Your task to perform on an android device: add a contact Image 0: 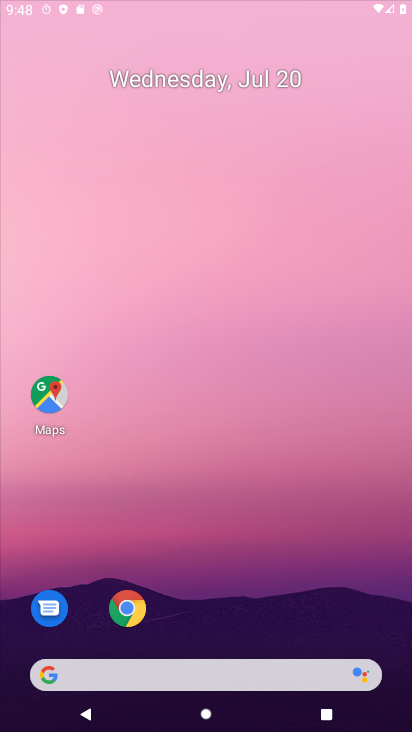
Step 0: click (197, 115)
Your task to perform on an android device: add a contact Image 1: 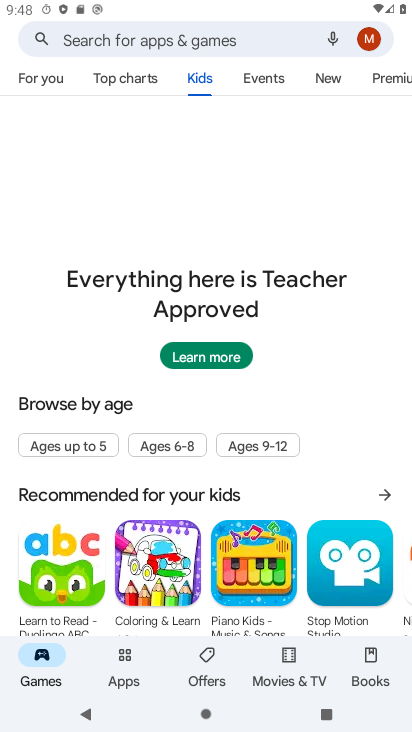
Step 1: press back button
Your task to perform on an android device: add a contact Image 2: 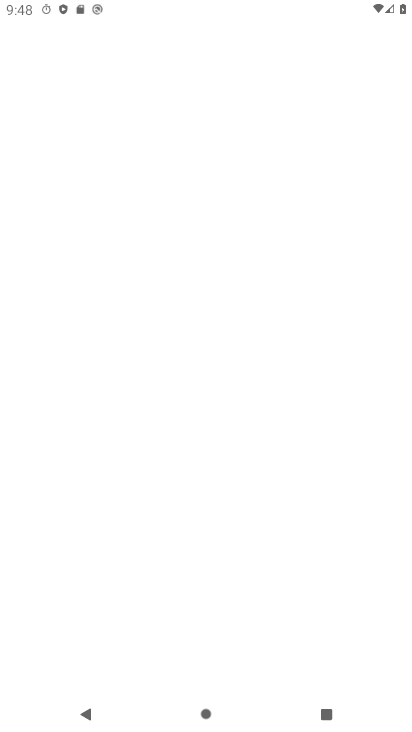
Step 2: press back button
Your task to perform on an android device: add a contact Image 3: 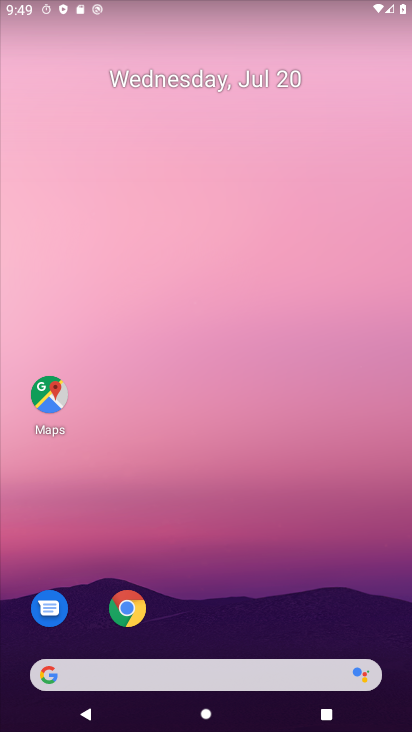
Step 3: drag from (261, 658) to (261, 65)
Your task to perform on an android device: add a contact Image 4: 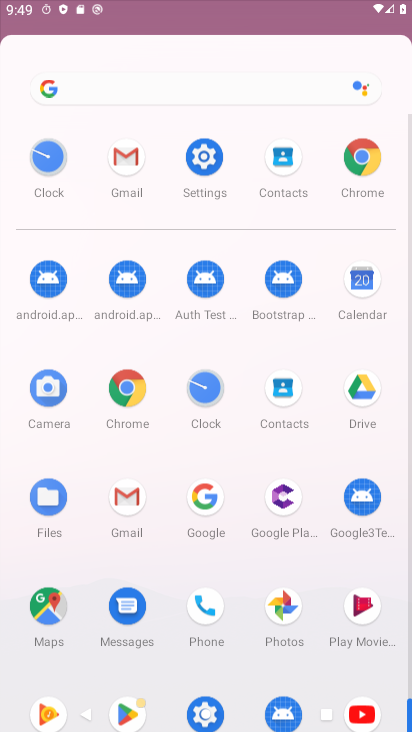
Step 4: drag from (252, 501) to (188, 27)
Your task to perform on an android device: add a contact Image 5: 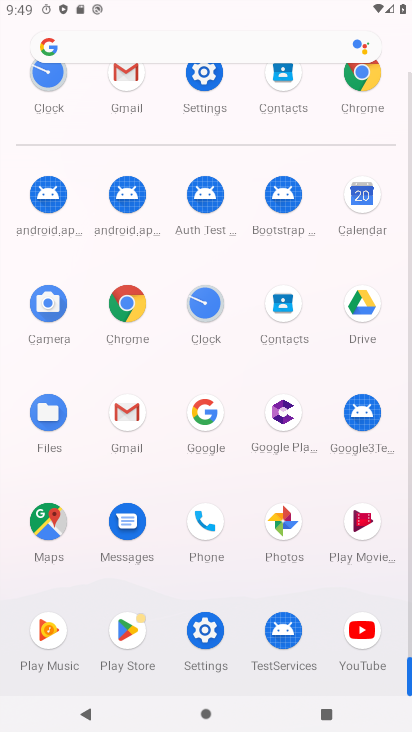
Step 5: click (281, 297)
Your task to perform on an android device: add a contact Image 6: 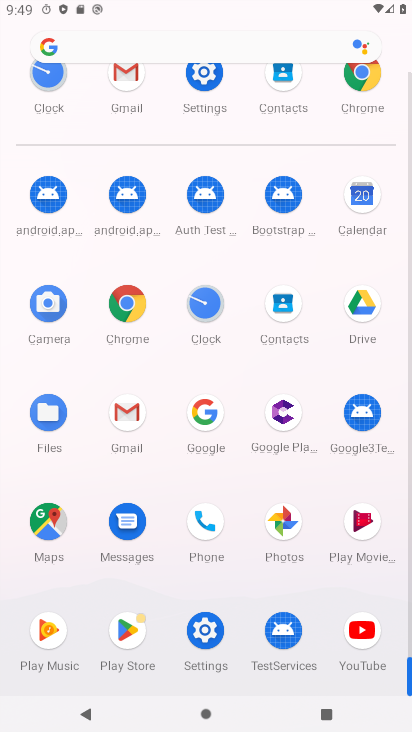
Step 6: click (280, 299)
Your task to perform on an android device: add a contact Image 7: 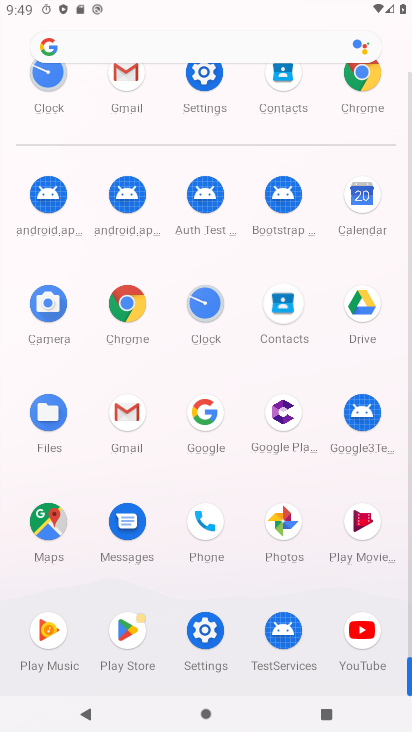
Step 7: click (284, 309)
Your task to perform on an android device: add a contact Image 8: 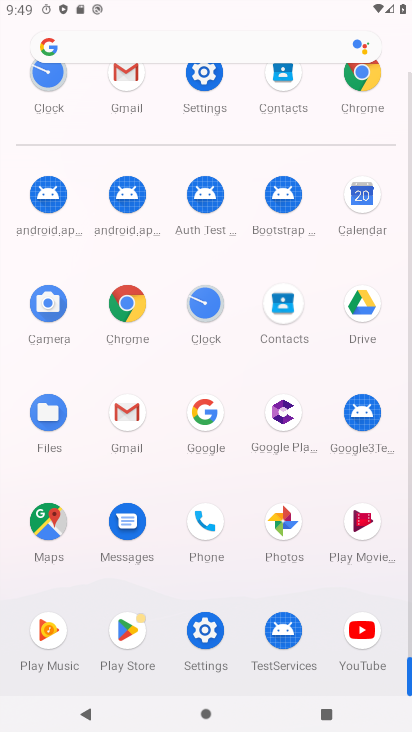
Step 8: click (286, 309)
Your task to perform on an android device: add a contact Image 9: 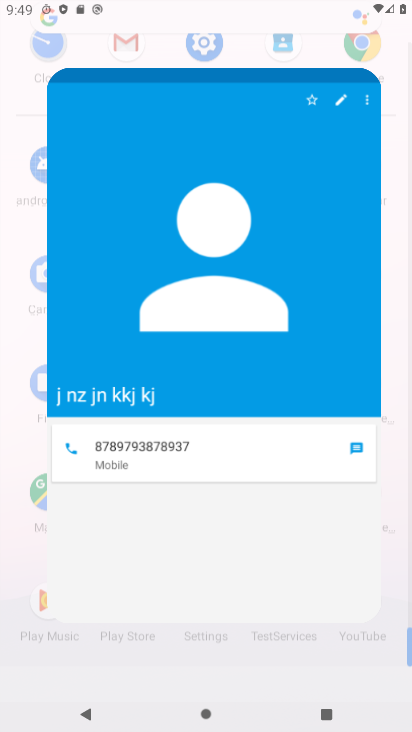
Step 9: click (287, 313)
Your task to perform on an android device: add a contact Image 10: 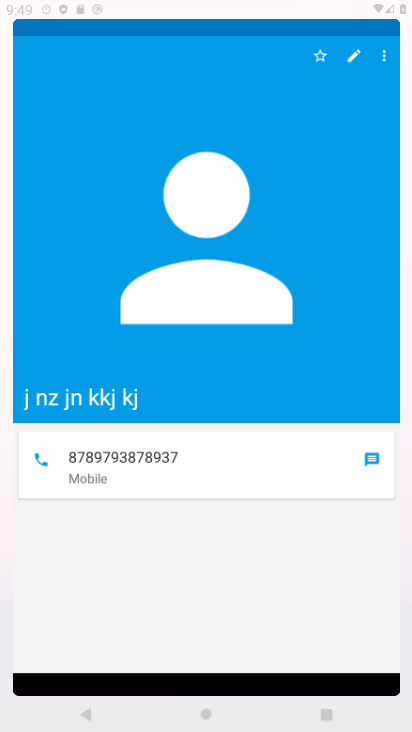
Step 10: click (287, 311)
Your task to perform on an android device: add a contact Image 11: 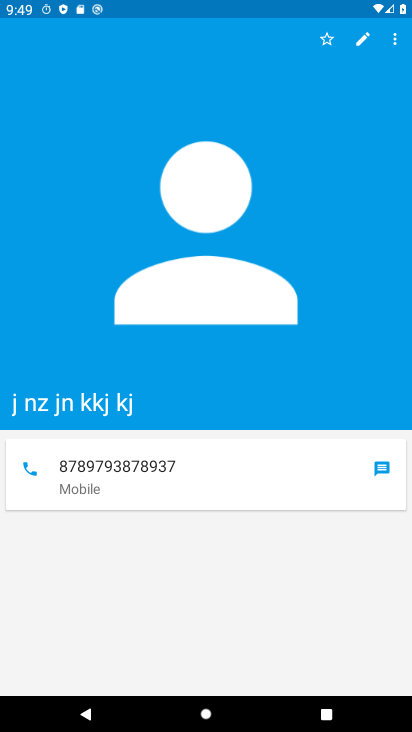
Step 11: click (284, 302)
Your task to perform on an android device: add a contact Image 12: 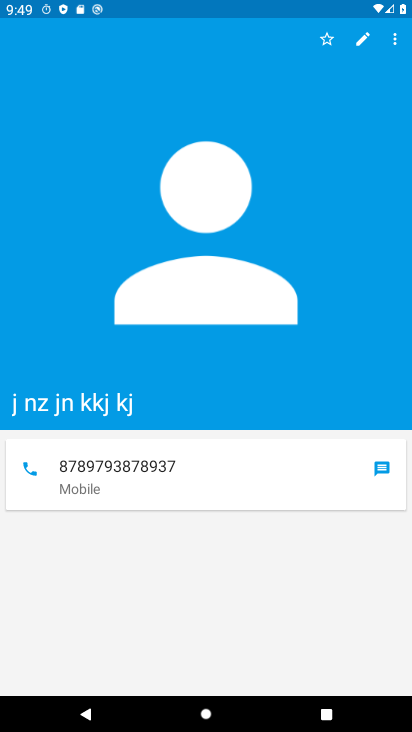
Step 12: press back button
Your task to perform on an android device: add a contact Image 13: 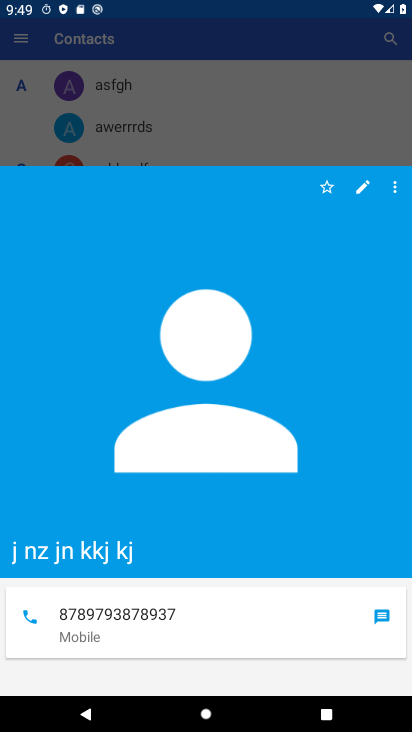
Step 13: press back button
Your task to perform on an android device: add a contact Image 14: 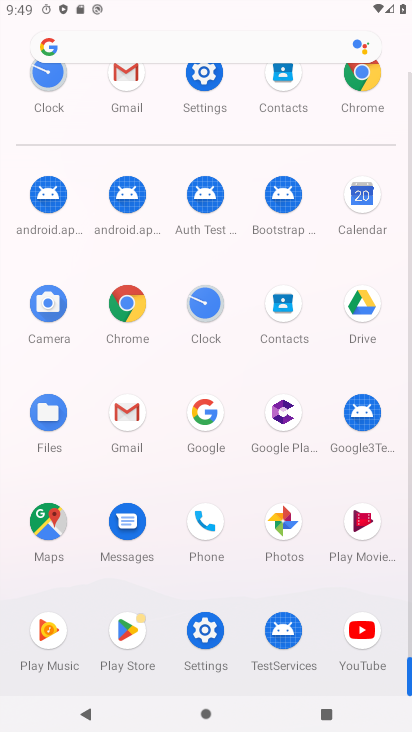
Step 14: click (287, 299)
Your task to perform on an android device: add a contact Image 15: 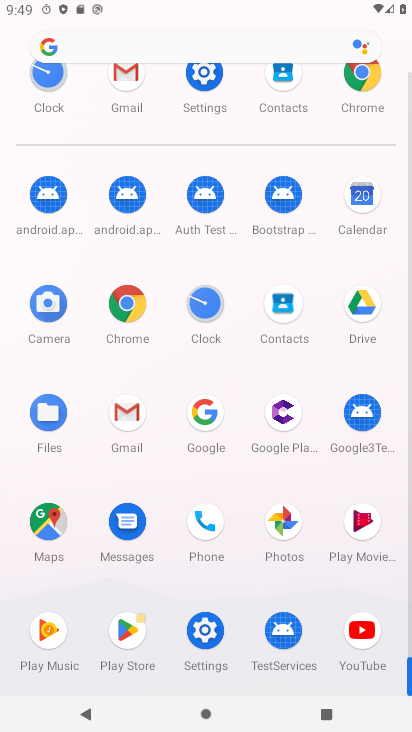
Step 15: click (289, 297)
Your task to perform on an android device: add a contact Image 16: 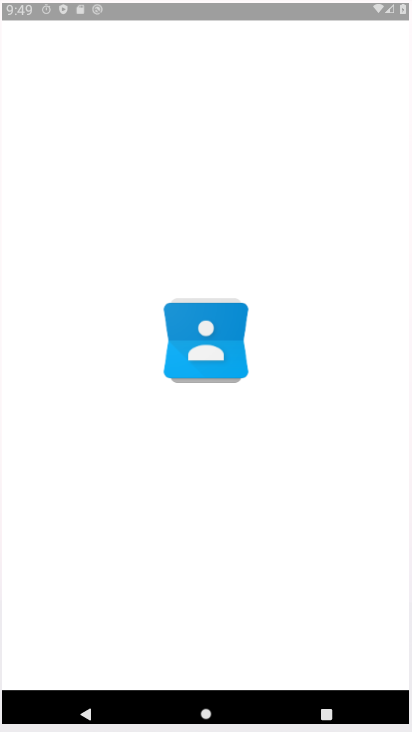
Step 16: click (298, 297)
Your task to perform on an android device: add a contact Image 17: 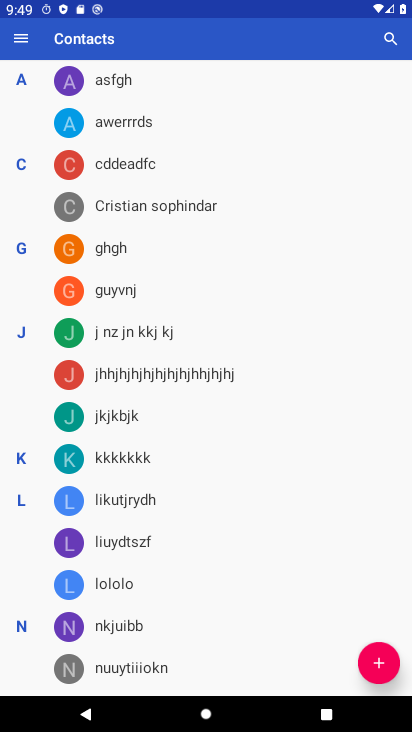
Step 17: click (379, 653)
Your task to perform on an android device: add a contact Image 18: 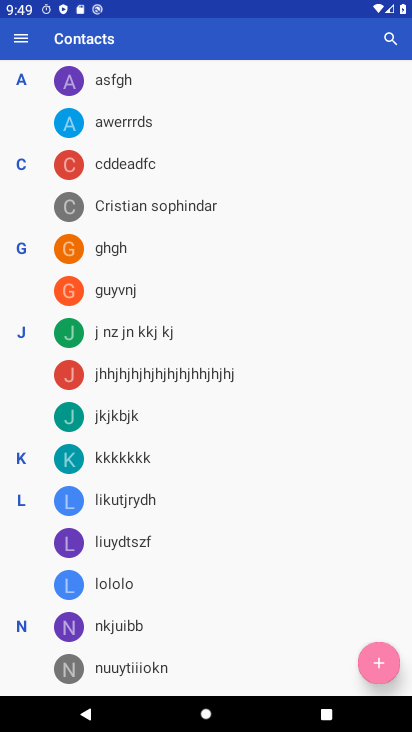
Step 18: click (384, 657)
Your task to perform on an android device: add a contact Image 19: 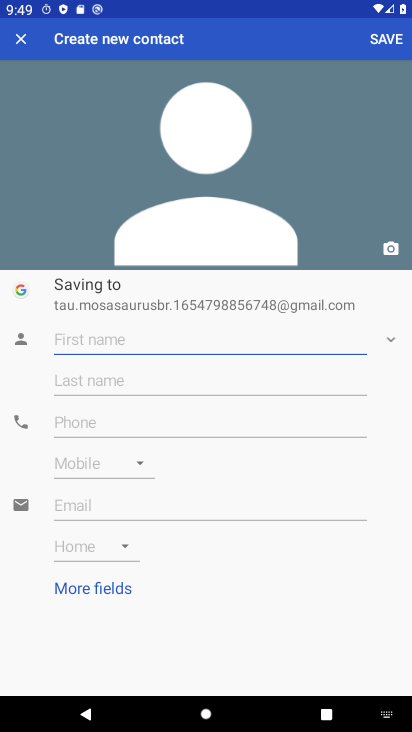
Step 19: type "nnvvsnvjinvj"
Your task to perform on an android device: add a contact Image 20: 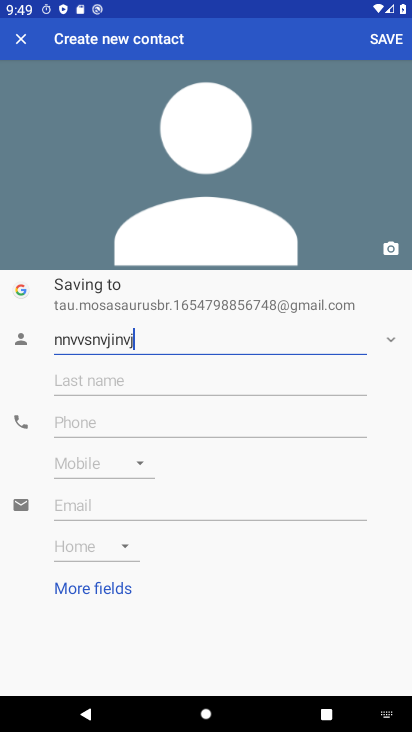
Step 20: click (73, 419)
Your task to perform on an android device: add a contact Image 21: 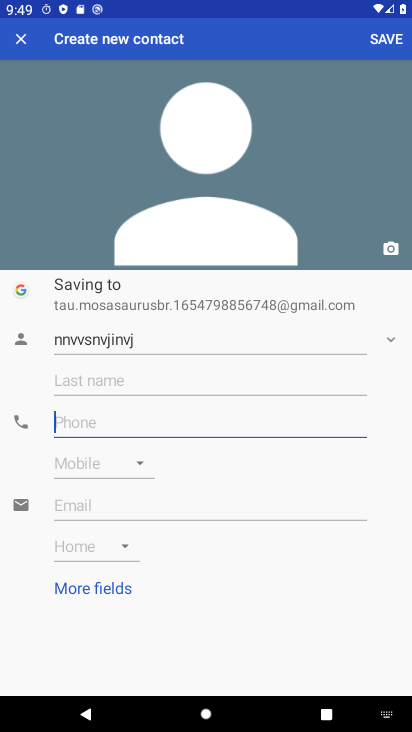
Step 21: click (73, 419)
Your task to perform on an android device: add a contact Image 22: 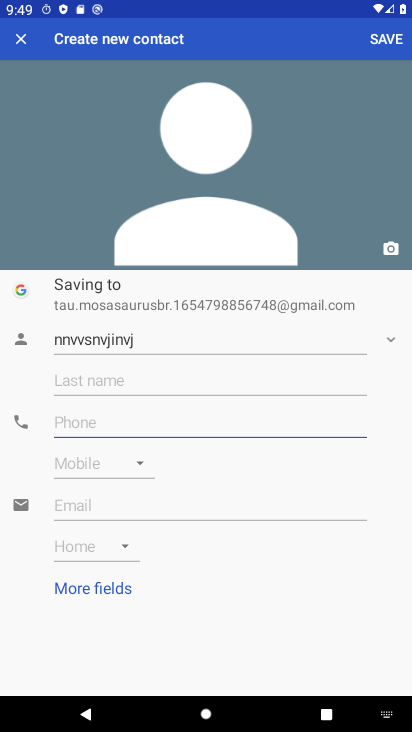
Step 22: click (73, 419)
Your task to perform on an android device: add a contact Image 23: 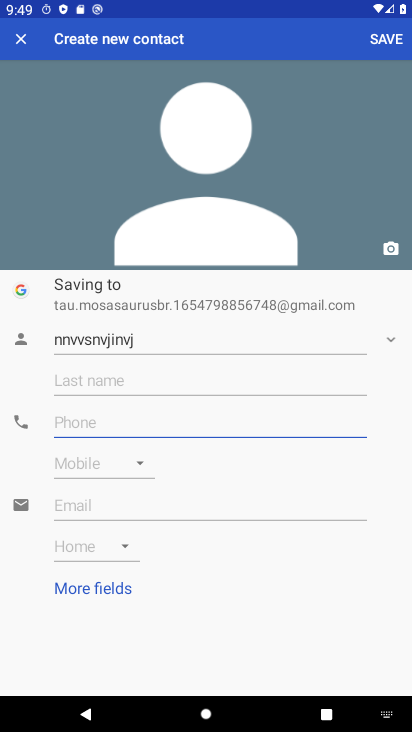
Step 23: click (73, 419)
Your task to perform on an android device: add a contact Image 24: 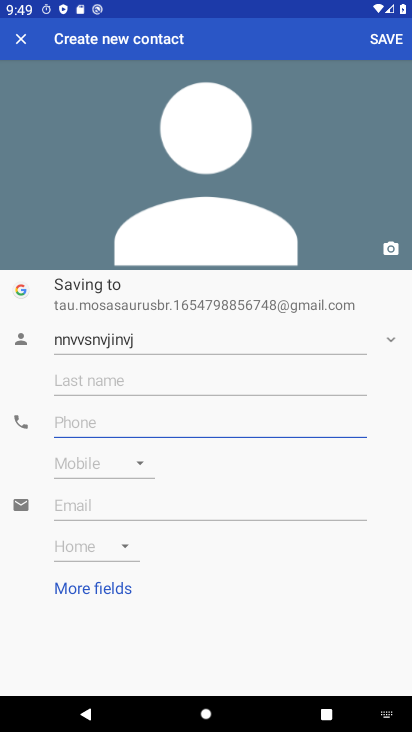
Step 24: type "6r2786478248948974"
Your task to perform on an android device: add a contact Image 25: 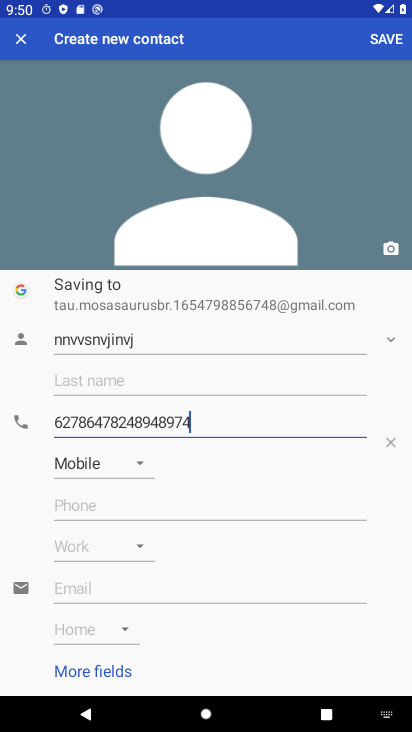
Step 25: click (388, 32)
Your task to perform on an android device: add a contact Image 26: 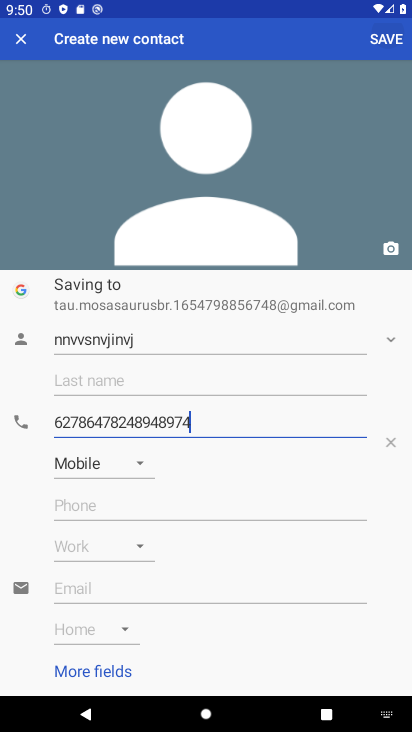
Step 26: click (386, 31)
Your task to perform on an android device: add a contact Image 27: 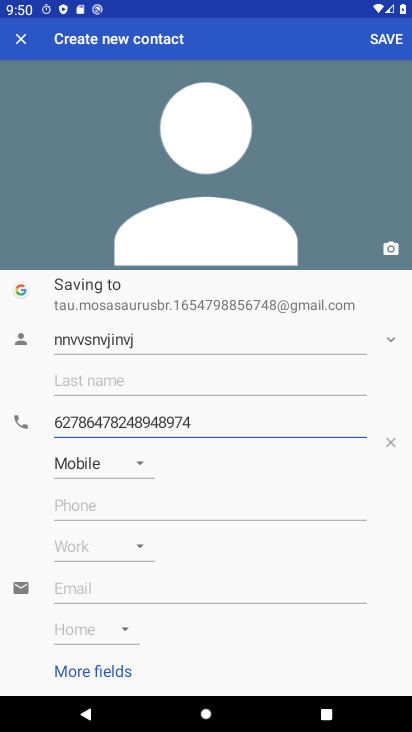
Step 27: click (383, 32)
Your task to perform on an android device: add a contact Image 28: 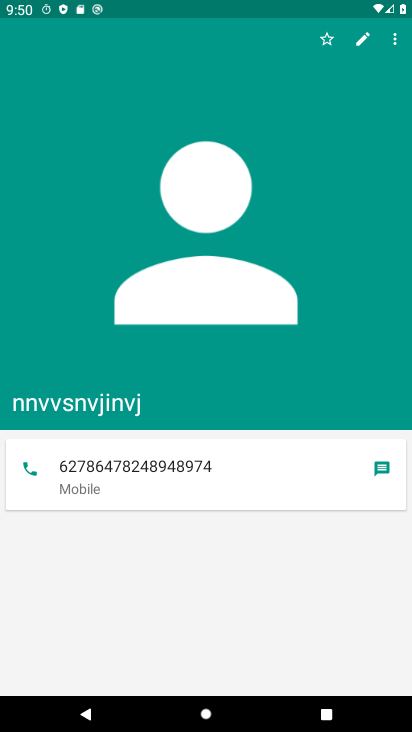
Step 28: task complete